Your task to perform on an android device: Set an alarm for 6pm Image 0: 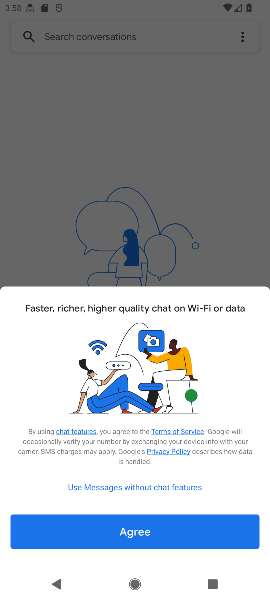
Step 0: press home button
Your task to perform on an android device: Set an alarm for 6pm Image 1: 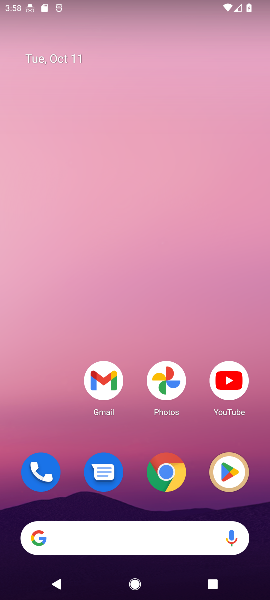
Step 1: drag from (130, 504) to (115, 27)
Your task to perform on an android device: Set an alarm for 6pm Image 2: 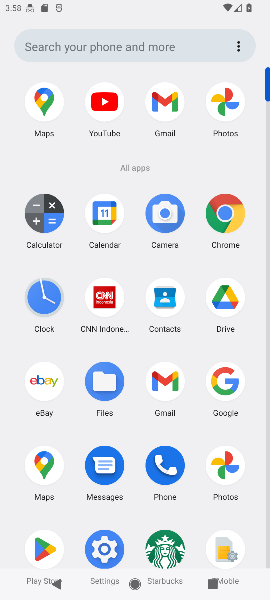
Step 2: click (45, 291)
Your task to perform on an android device: Set an alarm for 6pm Image 3: 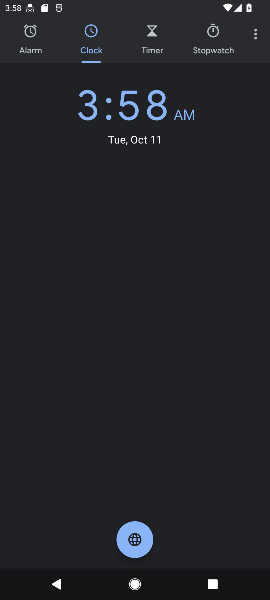
Step 3: click (40, 33)
Your task to perform on an android device: Set an alarm for 6pm Image 4: 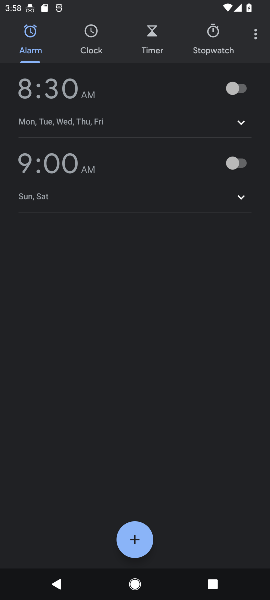
Step 4: click (125, 532)
Your task to perform on an android device: Set an alarm for 6pm Image 5: 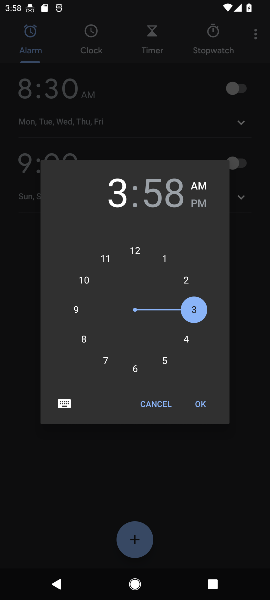
Step 5: click (136, 372)
Your task to perform on an android device: Set an alarm for 6pm Image 6: 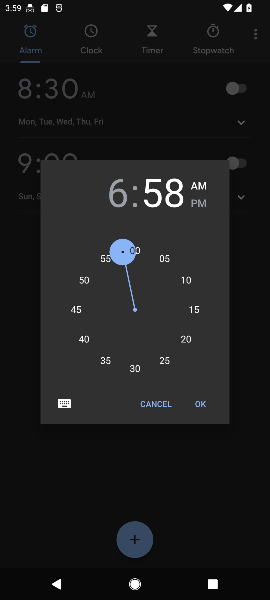
Step 6: click (136, 250)
Your task to perform on an android device: Set an alarm for 6pm Image 7: 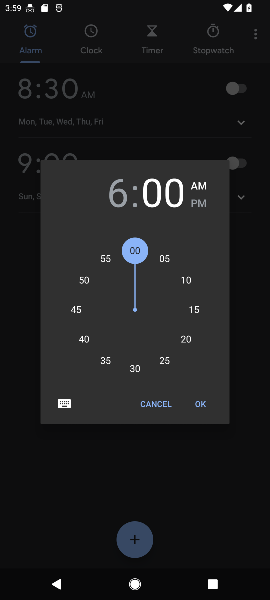
Step 7: click (197, 205)
Your task to perform on an android device: Set an alarm for 6pm Image 8: 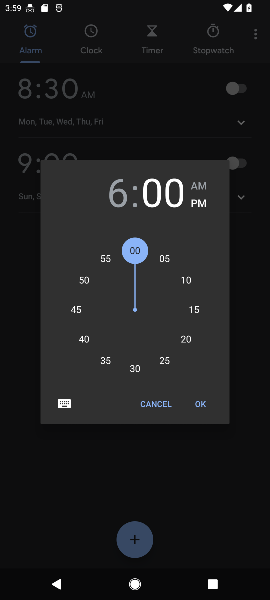
Step 8: click (200, 406)
Your task to perform on an android device: Set an alarm for 6pm Image 9: 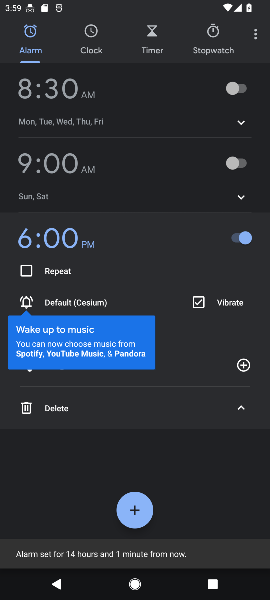
Step 9: task complete